Your task to perform on an android device: turn pop-ups off in chrome Image 0: 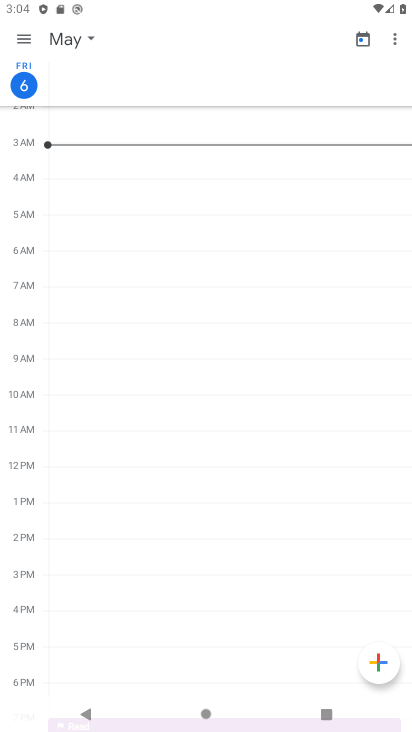
Step 0: press back button
Your task to perform on an android device: turn pop-ups off in chrome Image 1: 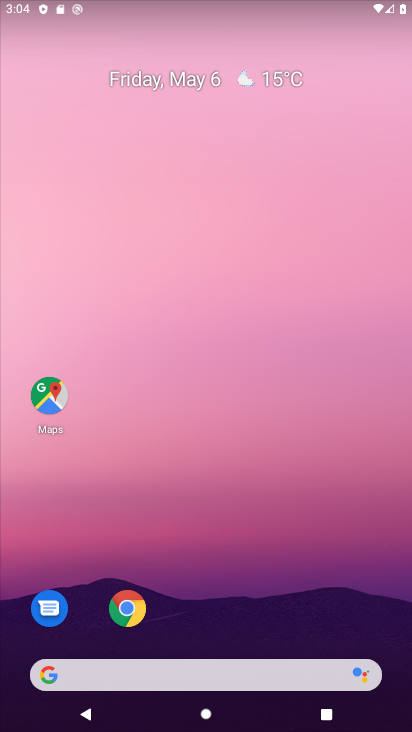
Step 1: click (126, 609)
Your task to perform on an android device: turn pop-ups off in chrome Image 2: 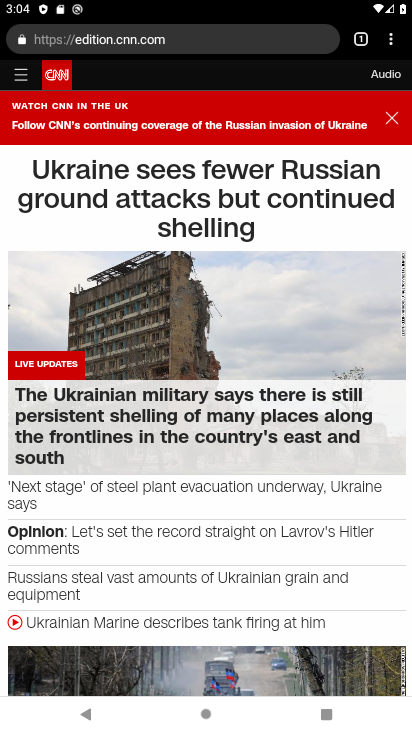
Step 2: drag from (396, 36) to (317, 432)
Your task to perform on an android device: turn pop-ups off in chrome Image 3: 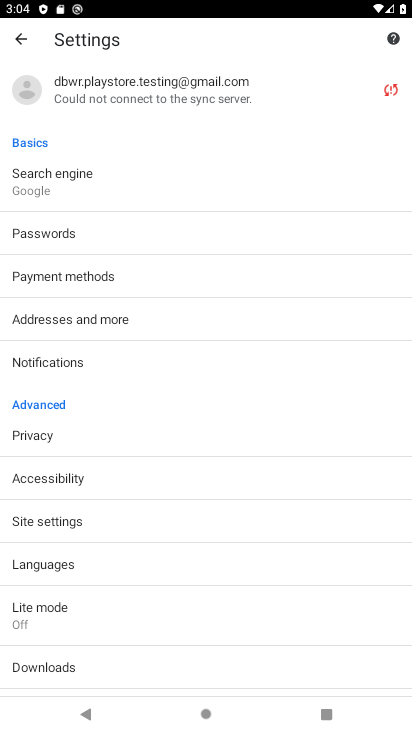
Step 3: click (157, 522)
Your task to perform on an android device: turn pop-ups off in chrome Image 4: 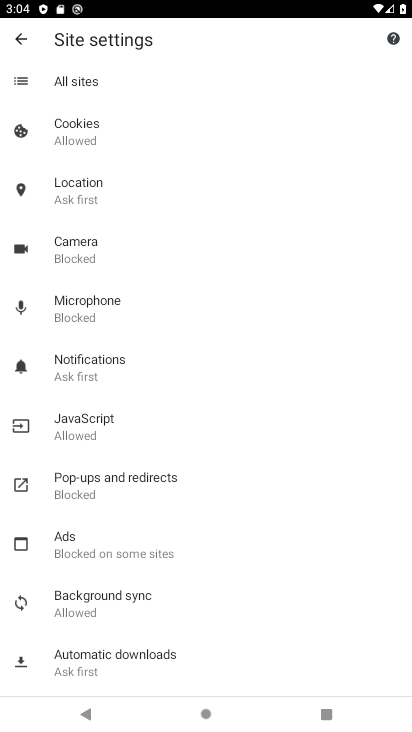
Step 4: click (155, 495)
Your task to perform on an android device: turn pop-ups off in chrome Image 5: 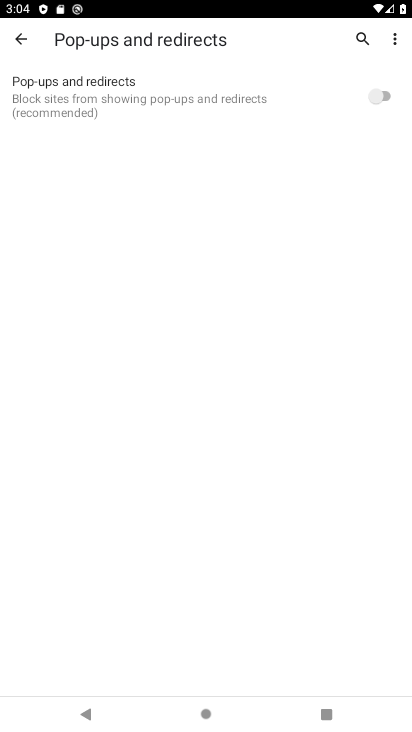
Step 5: task complete